Your task to perform on an android device: uninstall "Google Photos" Image 0: 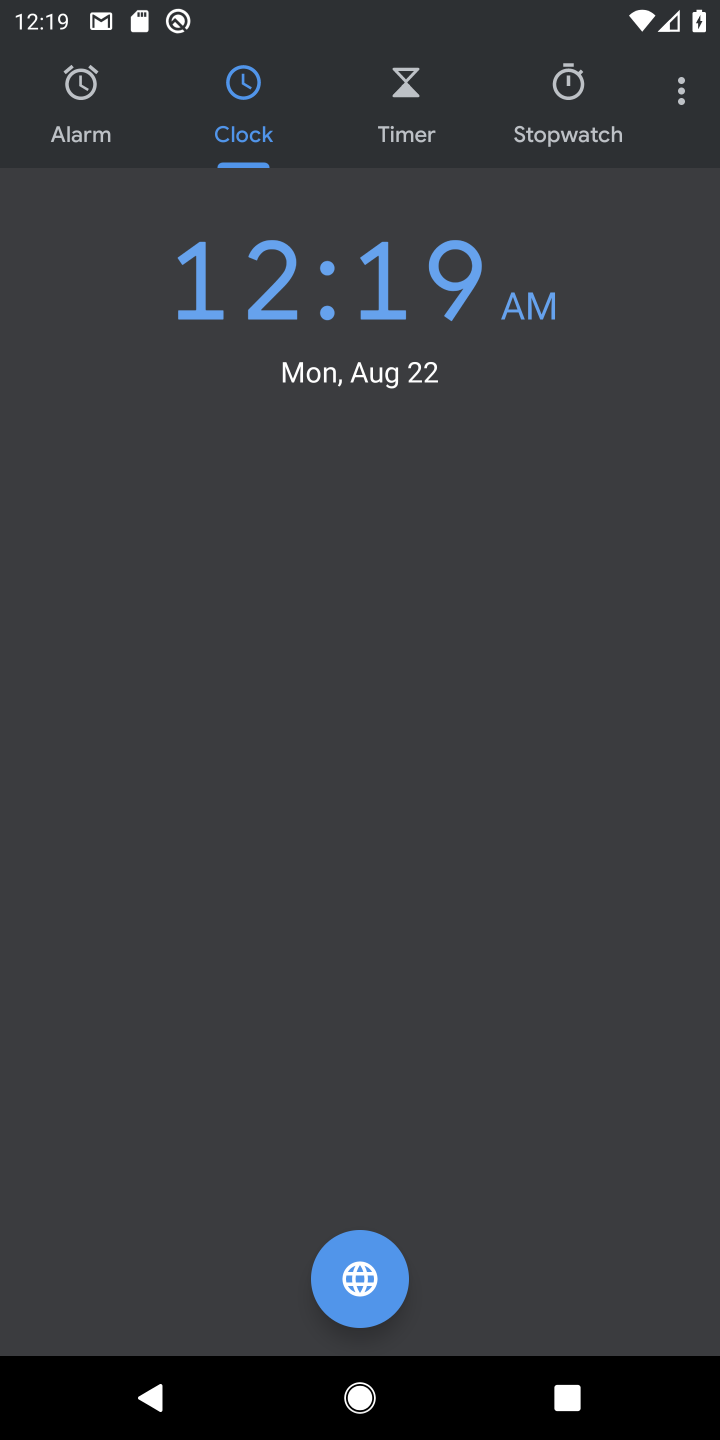
Step 0: press home button
Your task to perform on an android device: uninstall "Google Photos" Image 1: 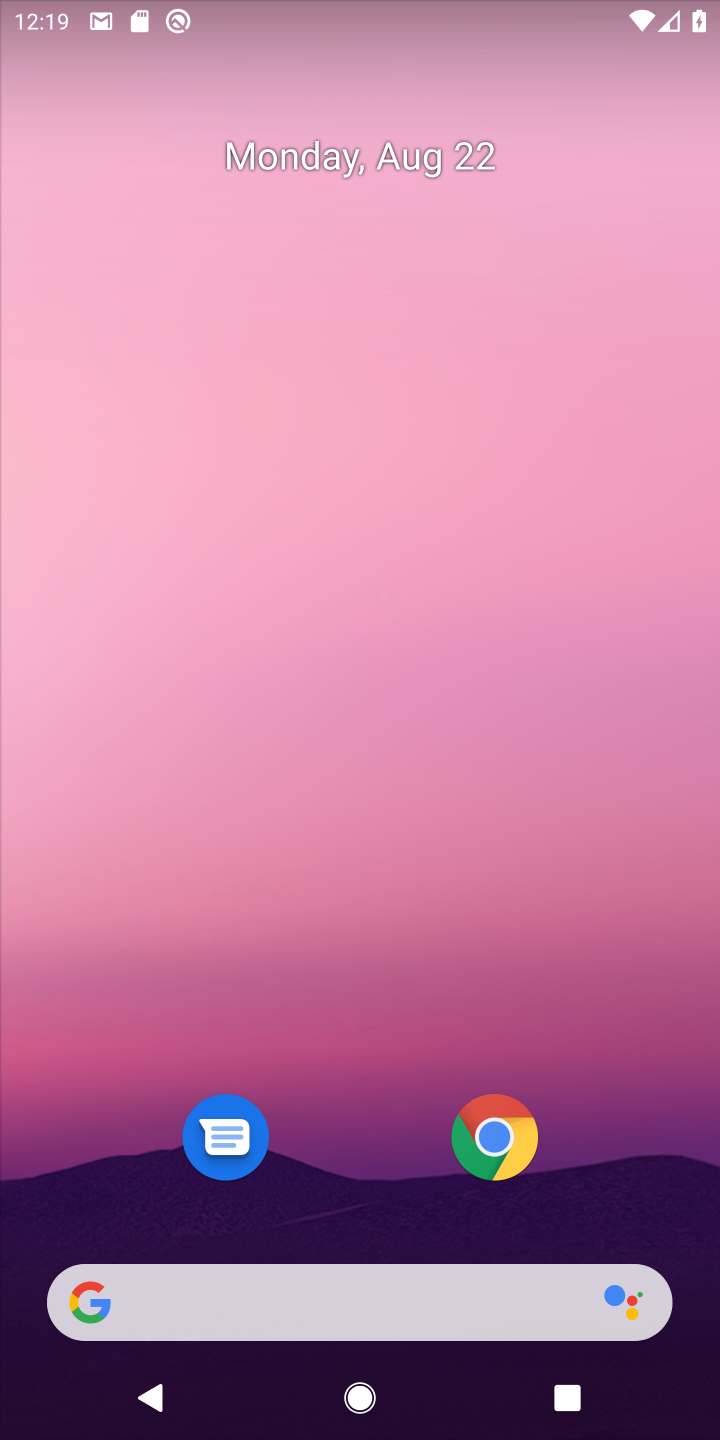
Step 1: drag from (658, 1192) to (570, 122)
Your task to perform on an android device: uninstall "Google Photos" Image 2: 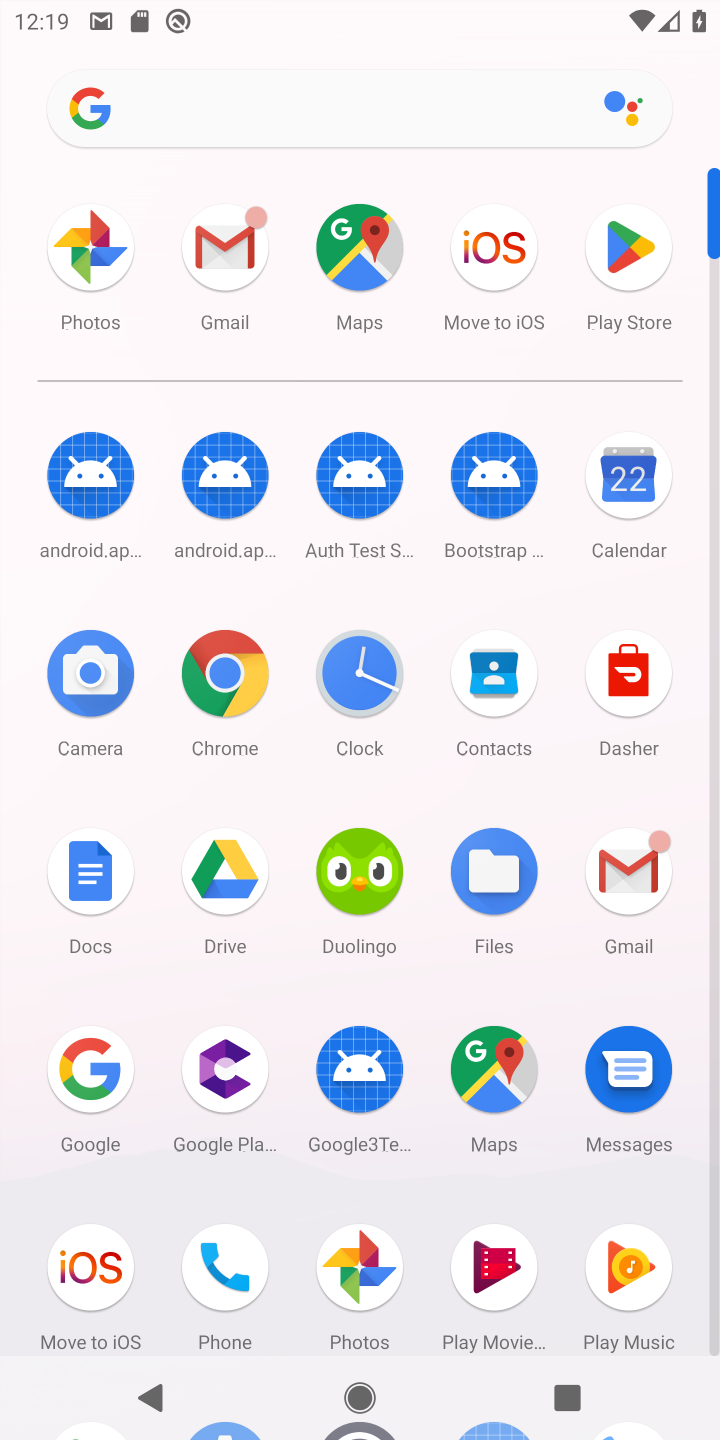
Step 2: drag from (354, 1266) to (381, 746)
Your task to perform on an android device: uninstall "Google Photos" Image 3: 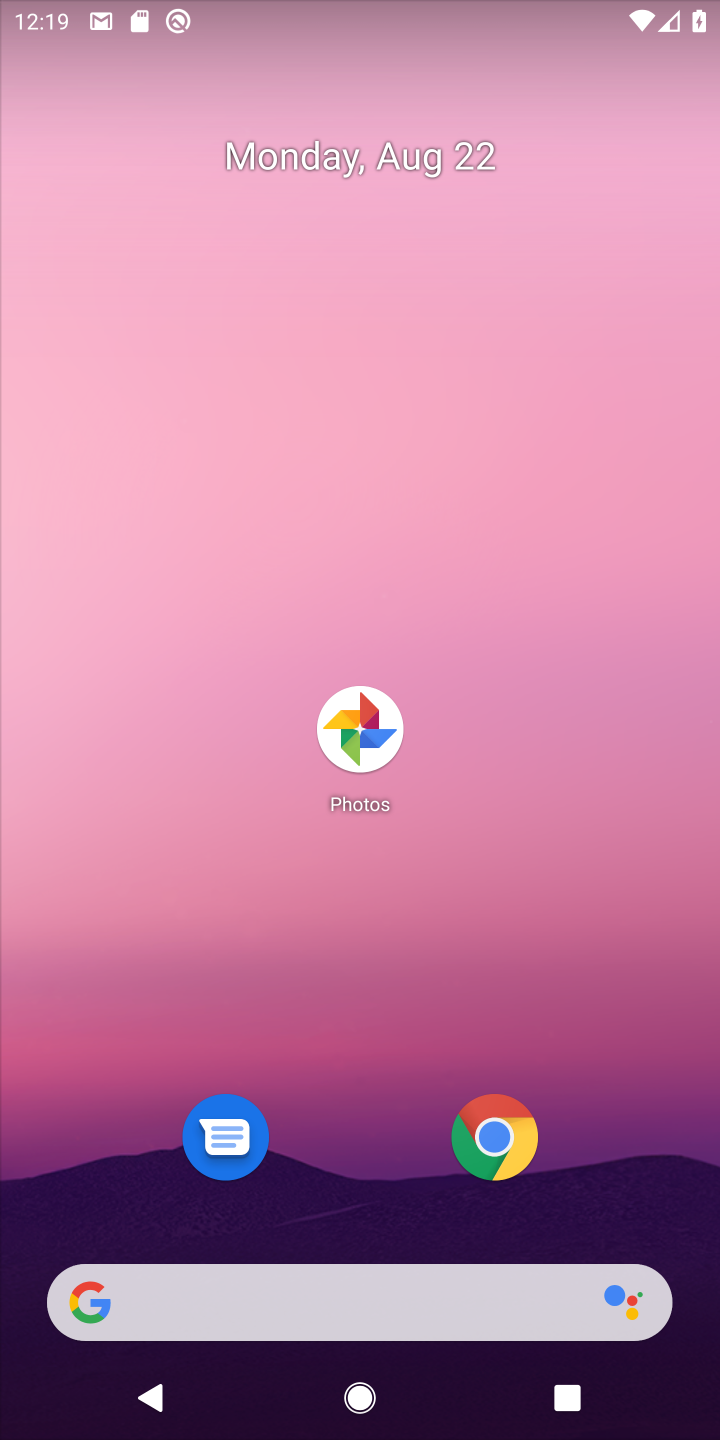
Step 3: click (381, 783)
Your task to perform on an android device: uninstall "Google Photos" Image 4: 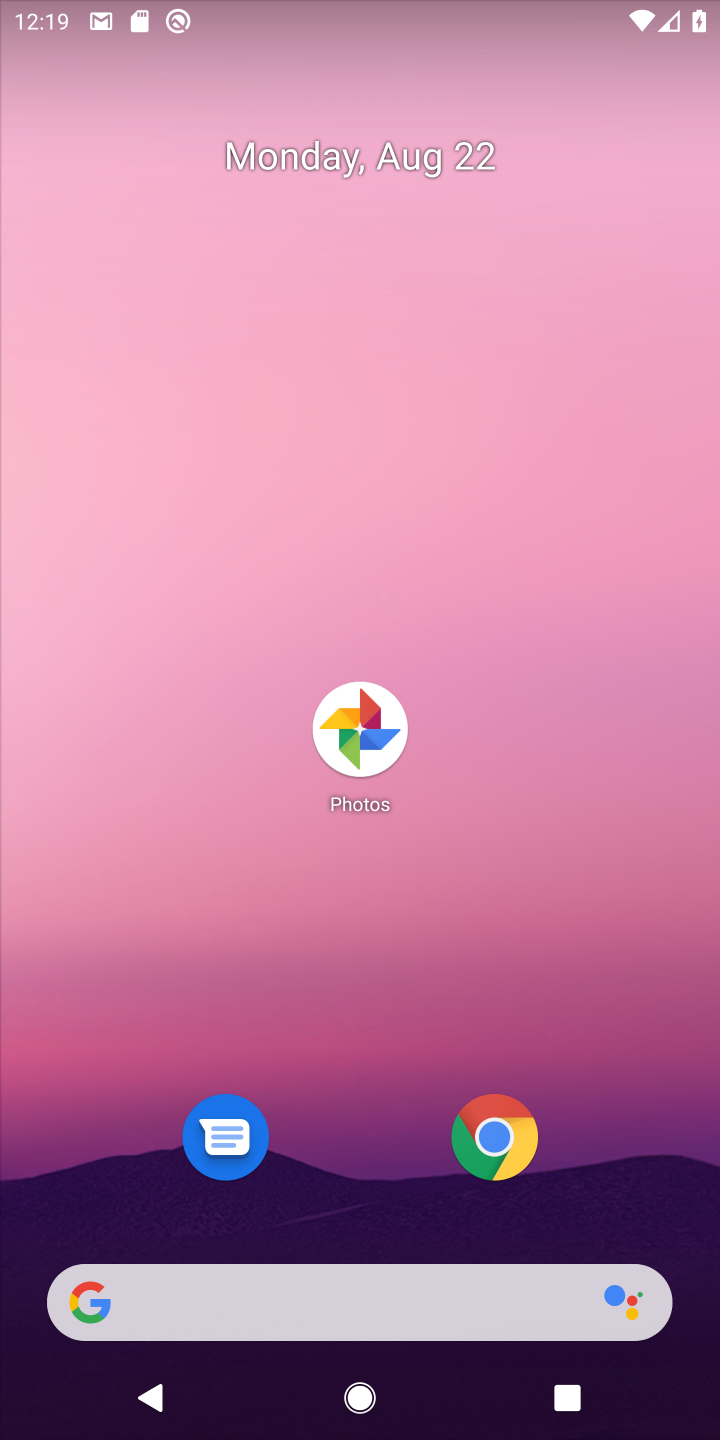
Step 4: click (364, 743)
Your task to perform on an android device: uninstall "Google Photos" Image 5: 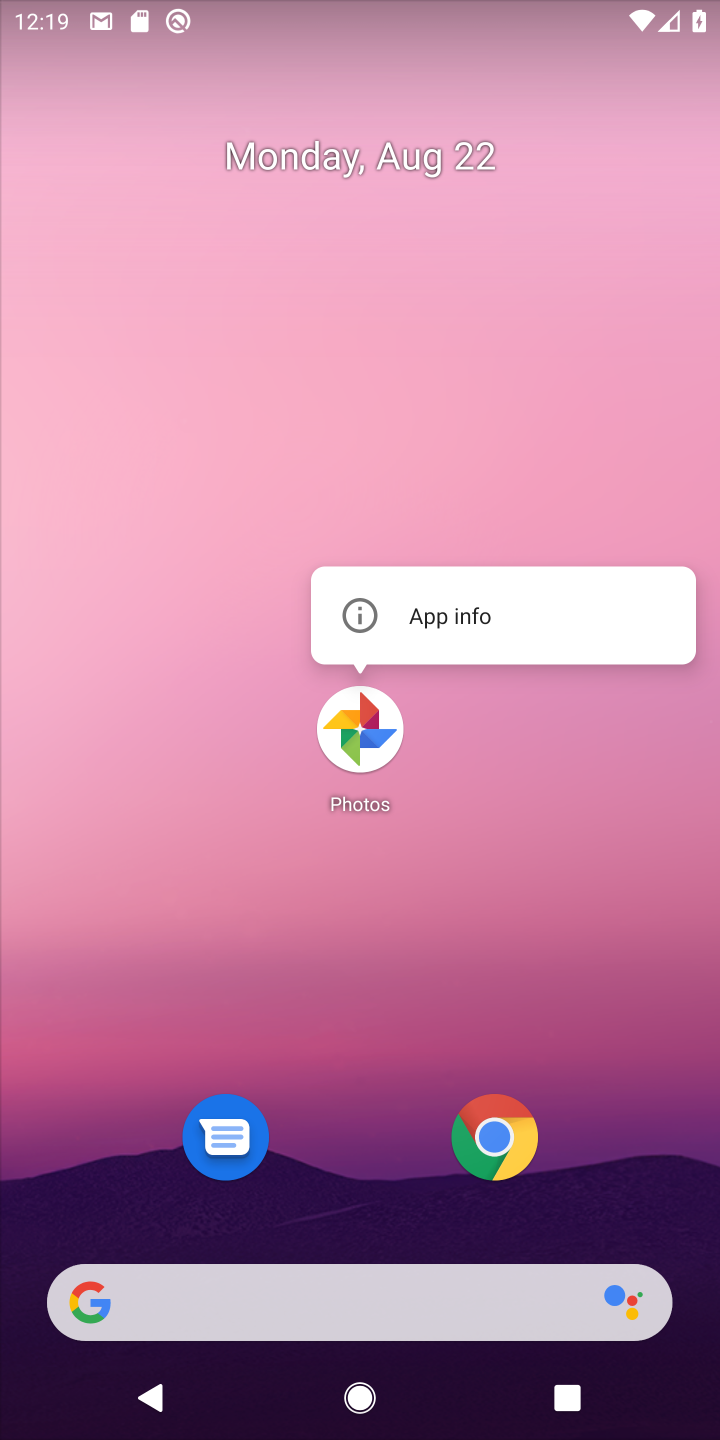
Step 5: click (354, 610)
Your task to perform on an android device: uninstall "Google Photos" Image 6: 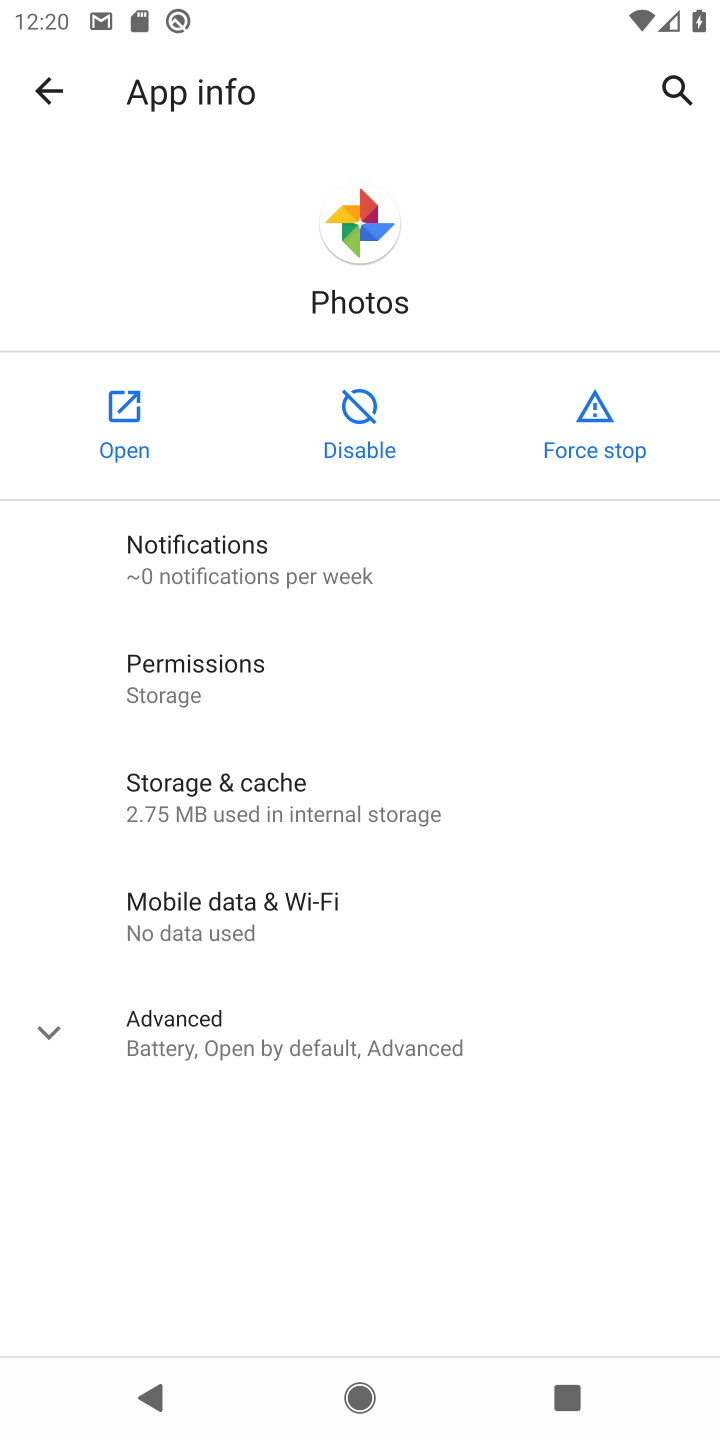
Step 6: task complete